Your task to perform on an android device: change the clock display to show seconds Image 0: 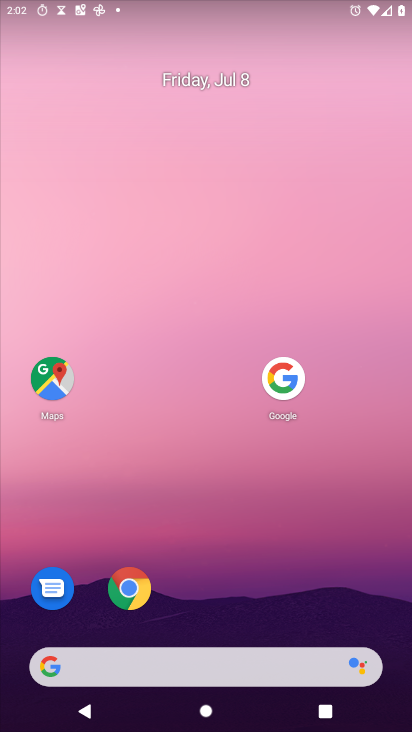
Step 0: drag from (141, 662) to (270, 40)
Your task to perform on an android device: change the clock display to show seconds Image 1: 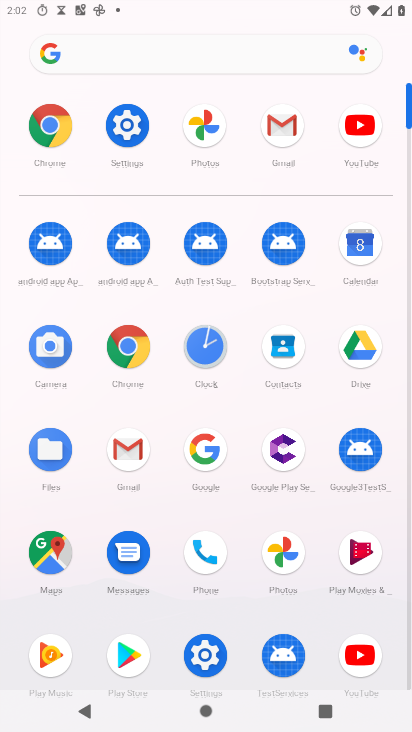
Step 1: click (202, 341)
Your task to perform on an android device: change the clock display to show seconds Image 2: 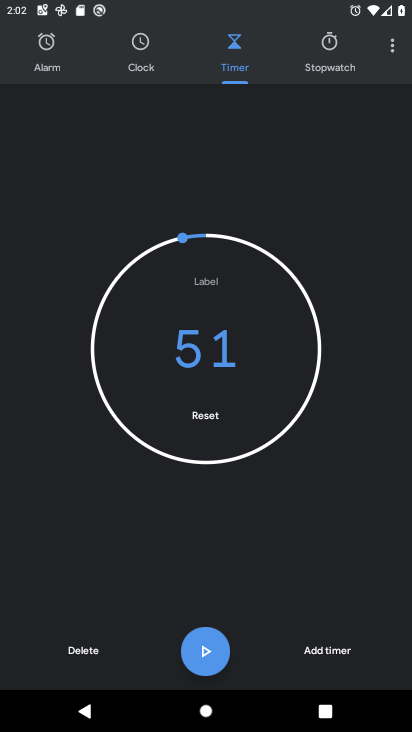
Step 2: click (392, 41)
Your task to perform on an android device: change the clock display to show seconds Image 3: 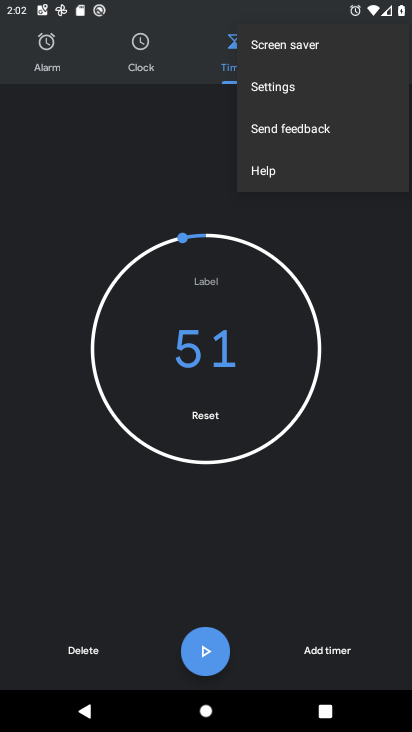
Step 3: click (289, 96)
Your task to perform on an android device: change the clock display to show seconds Image 4: 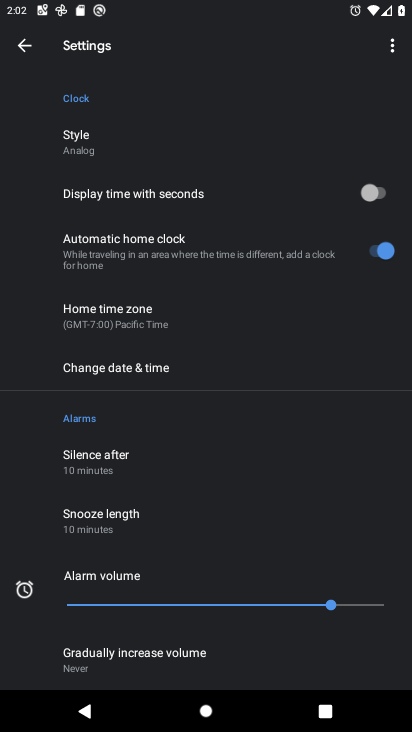
Step 4: click (381, 194)
Your task to perform on an android device: change the clock display to show seconds Image 5: 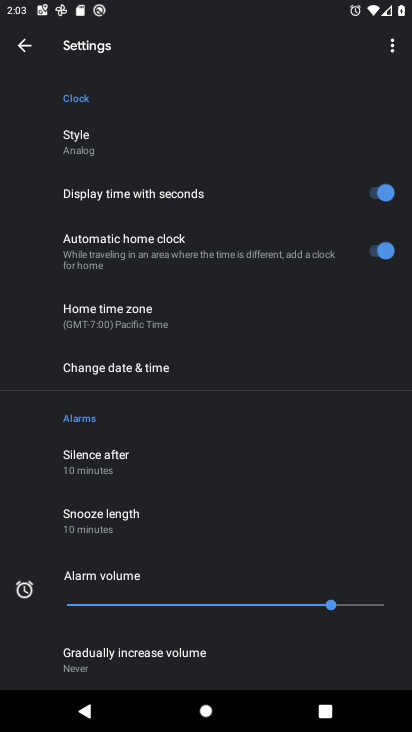
Step 5: task complete